Your task to perform on an android device: turn off notifications in google photos Image 0: 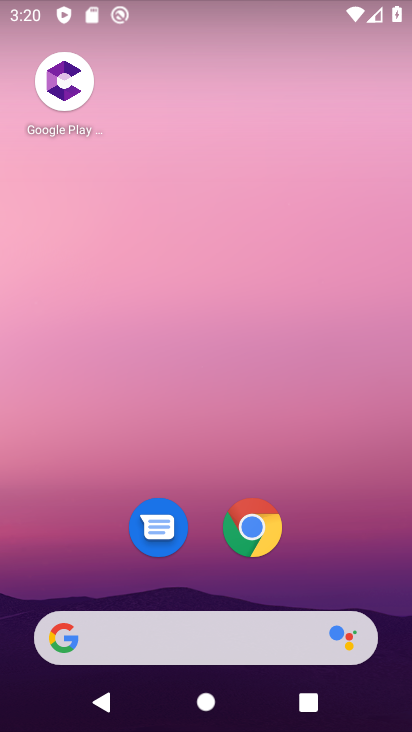
Step 0: drag from (227, 588) to (144, 23)
Your task to perform on an android device: turn off notifications in google photos Image 1: 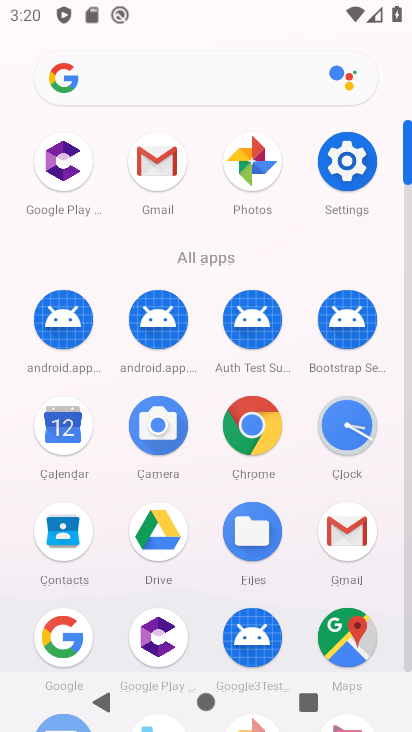
Step 1: click (243, 154)
Your task to perform on an android device: turn off notifications in google photos Image 2: 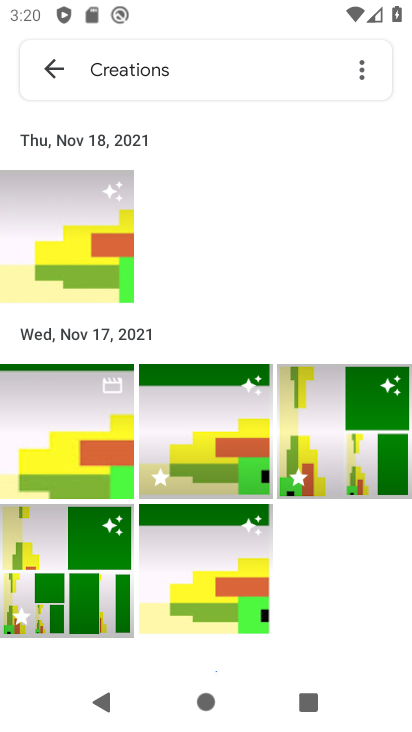
Step 2: click (51, 71)
Your task to perform on an android device: turn off notifications in google photos Image 3: 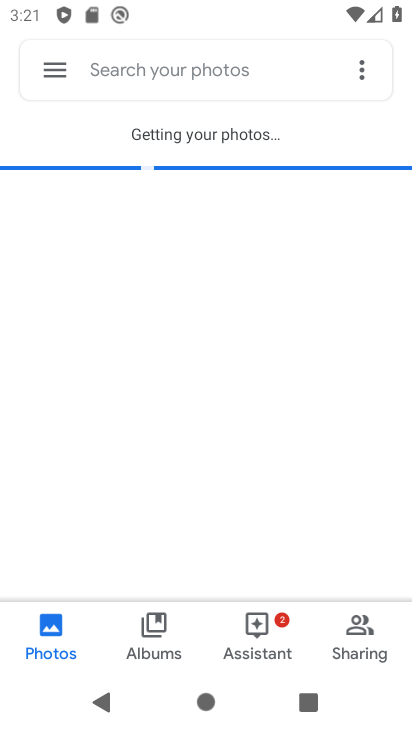
Step 3: click (34, 72)
Your task to perform on an android device: turn off notifications in google photos Image 4: 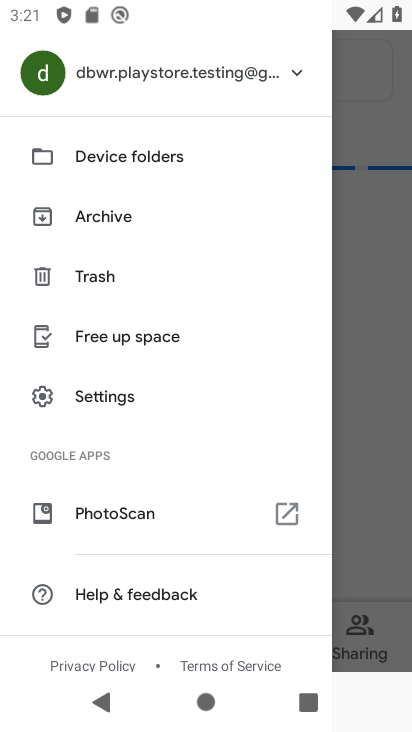
Step 4: drag from (157, 579) to (157, 350)
Your task to perform on an android device: turn off notifications in google photos Image 5: 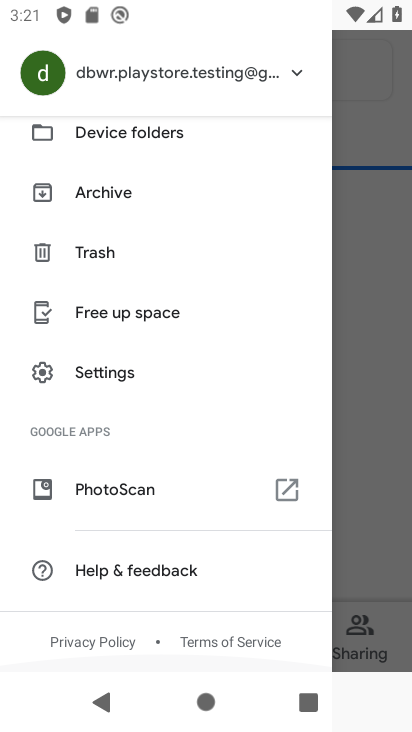
Step 5: click (81, 375)
Your task to perform on an android device: turn off notifications in google photos Image 6: 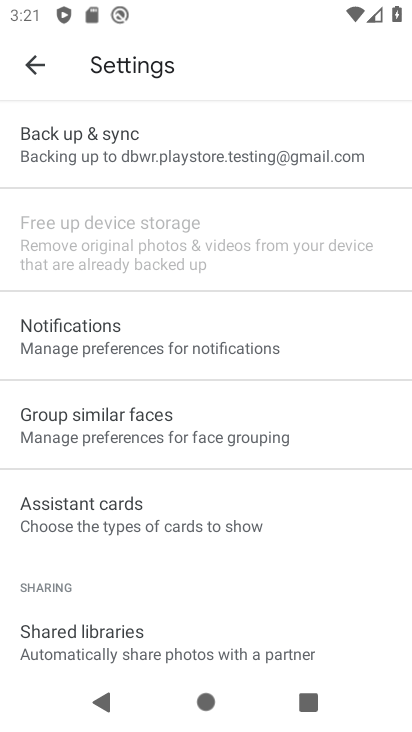
Step 6: click (127, 349)
Your task to perform on an android device: turn off notifications in google photos Image 7: 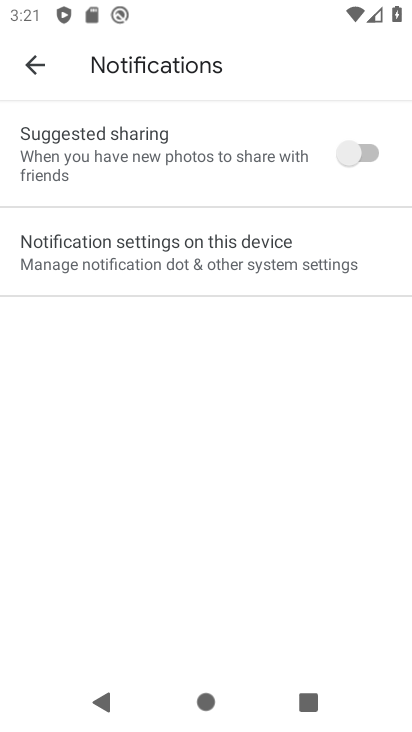
Step 7: click (157, 237)
Your task to perform on an android device: turn off notifications in google photos Image 8: 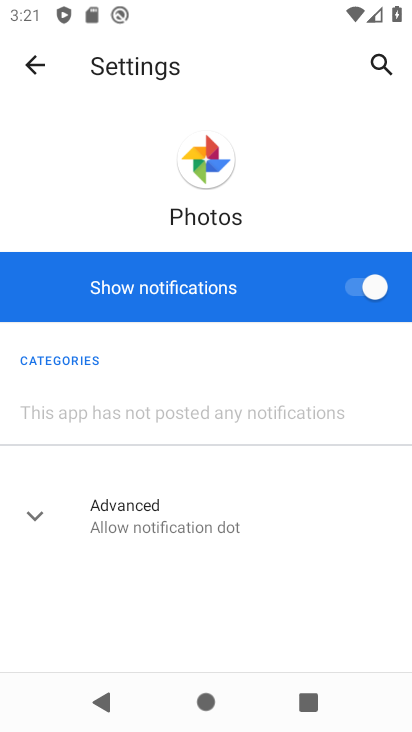
Step 8: click (380, 284)
Your task to perform on an android device: turn off notifications in google photos Image 9: 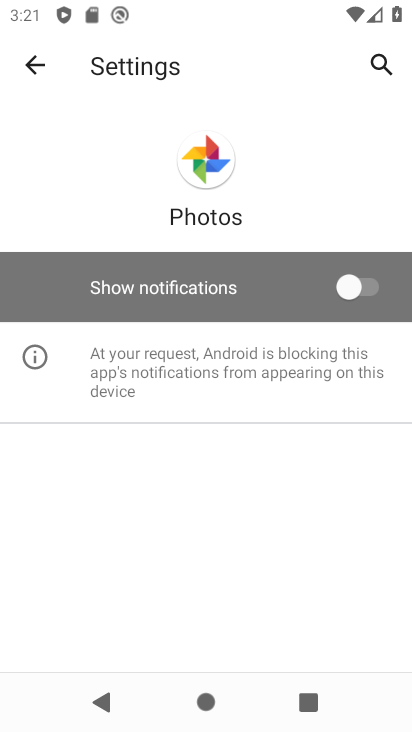
Step 9: task complete